Your task to perform on an android device: open app "File Manager" (install if not already installed) Image 0: 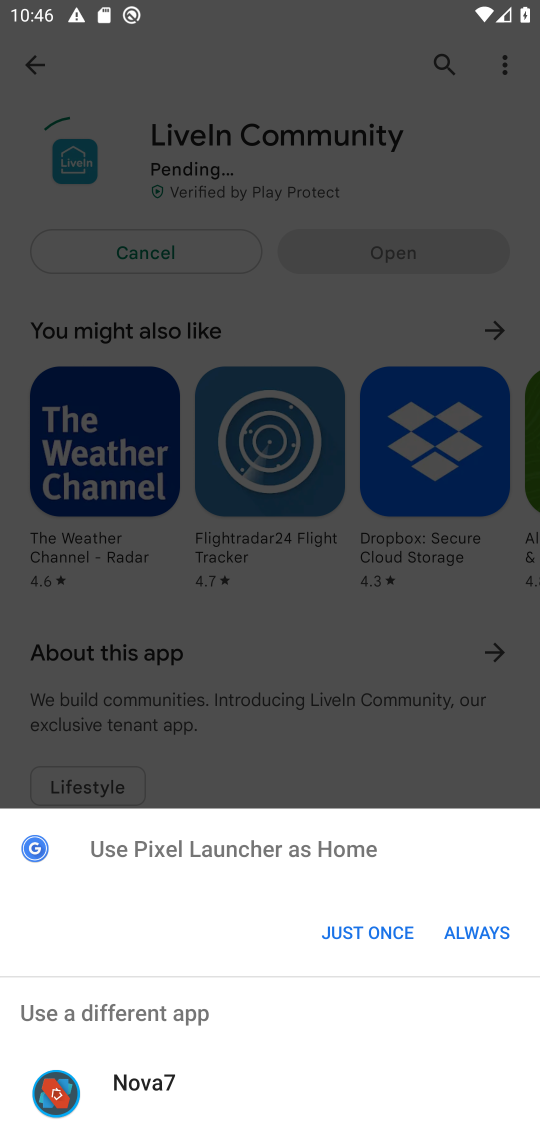
Step 0: click (404, 928)
Your task to perform on an android device: open app "File Manager" (install if not already installed) Image 1: 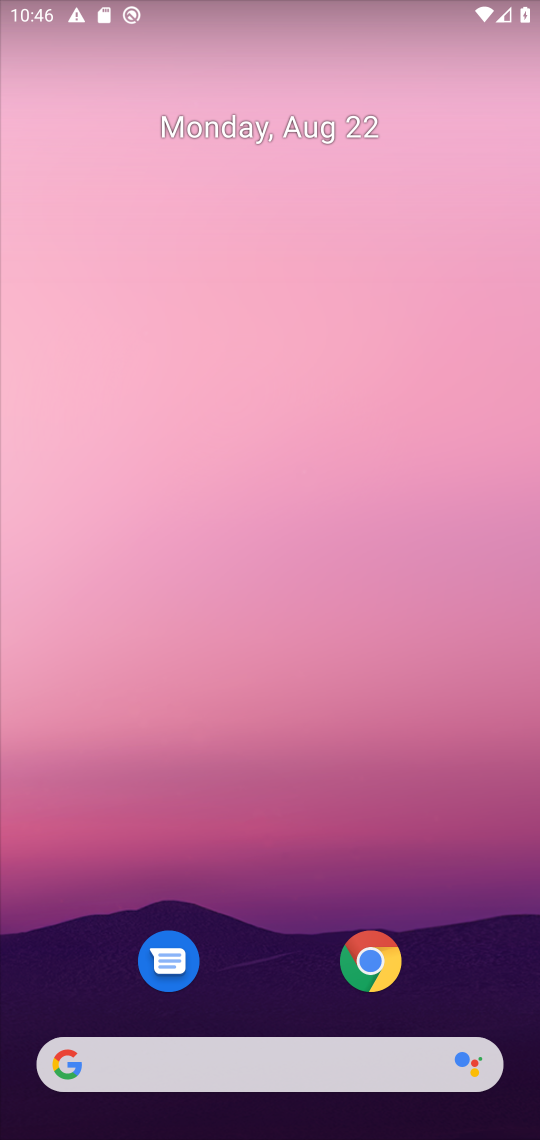
Step 1: drag from (258, 997) to (166, 37)
Your task to perform on an android device: open app "File Manager" (install if not already installed) Image 2: 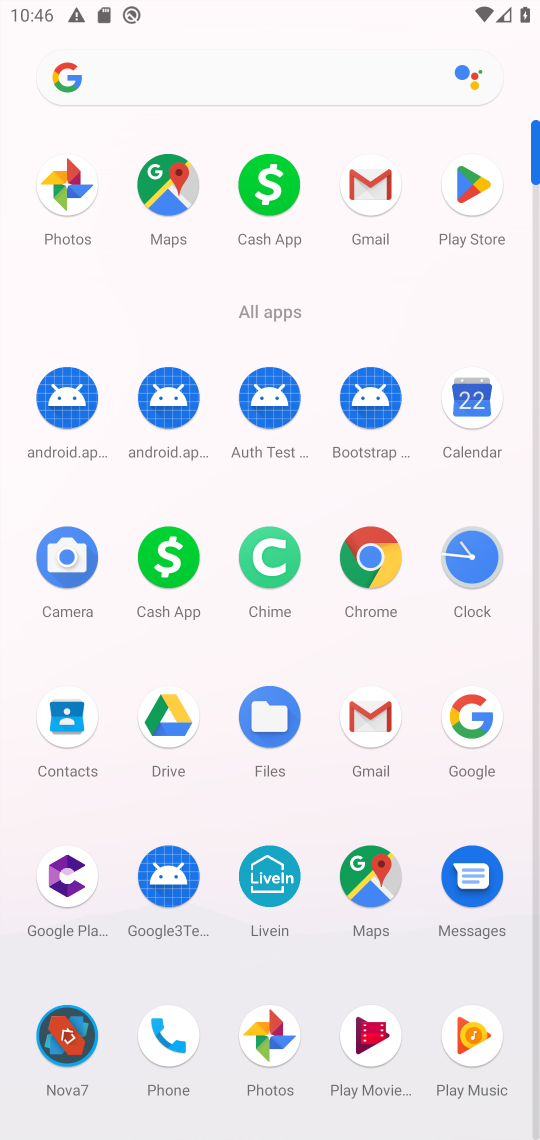
Step 2: click (282, 744)
Your task to perform on an android device: open app "File Manager" (install if not already installed) Image 3: 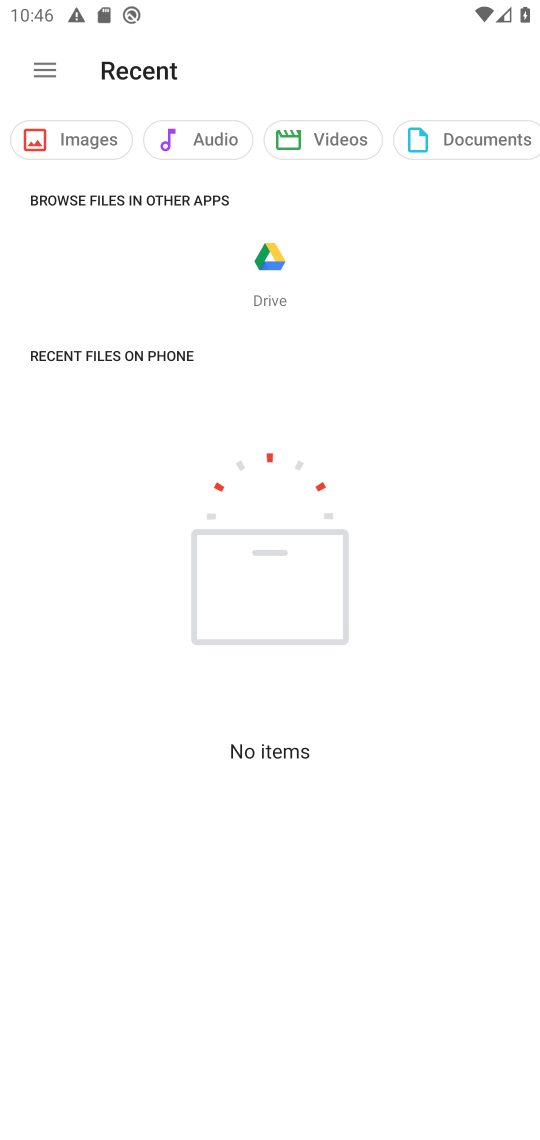
Step 3: press home button
Your task to perform on an android device: open app "File Manager" (install if not already installed) Image 4: 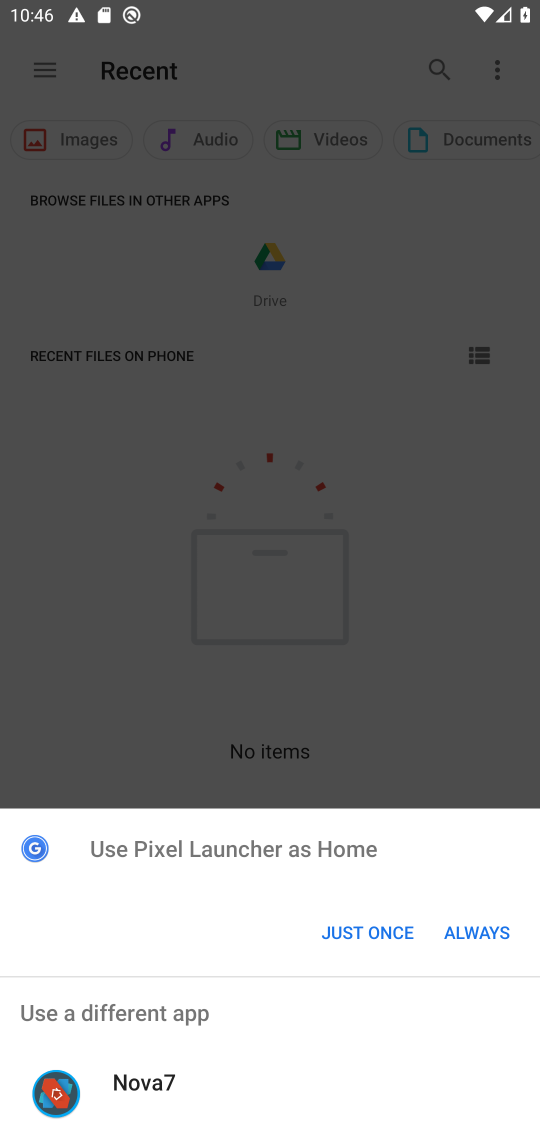
Step 4: press home button
Your task to perform on an android device: open app "File Manager" (install if not already installed) Image 5: 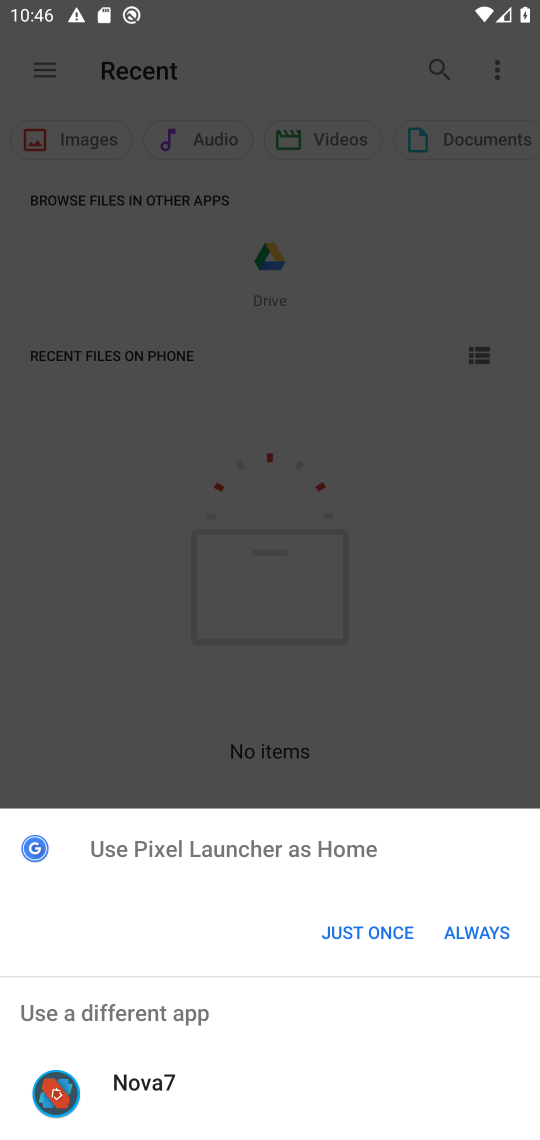
Step 5: press home button
Your task to perform on an android device: open app "File Manager" (install if not already installed) Image 6: 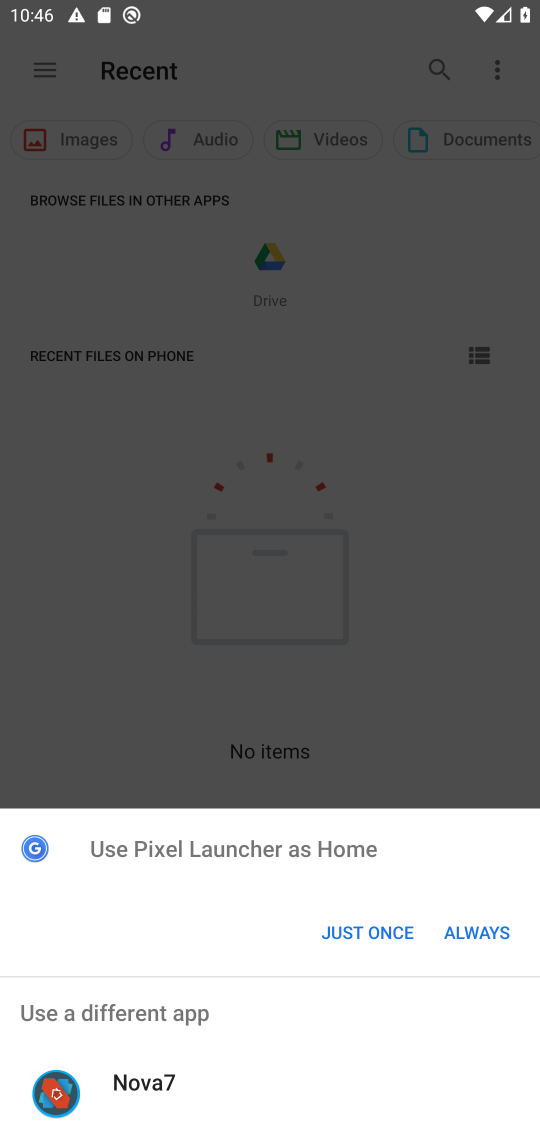
Step 6: press home button
Your task to perform on an android device: open app "File Manager" (install if not already installed) Image 7: 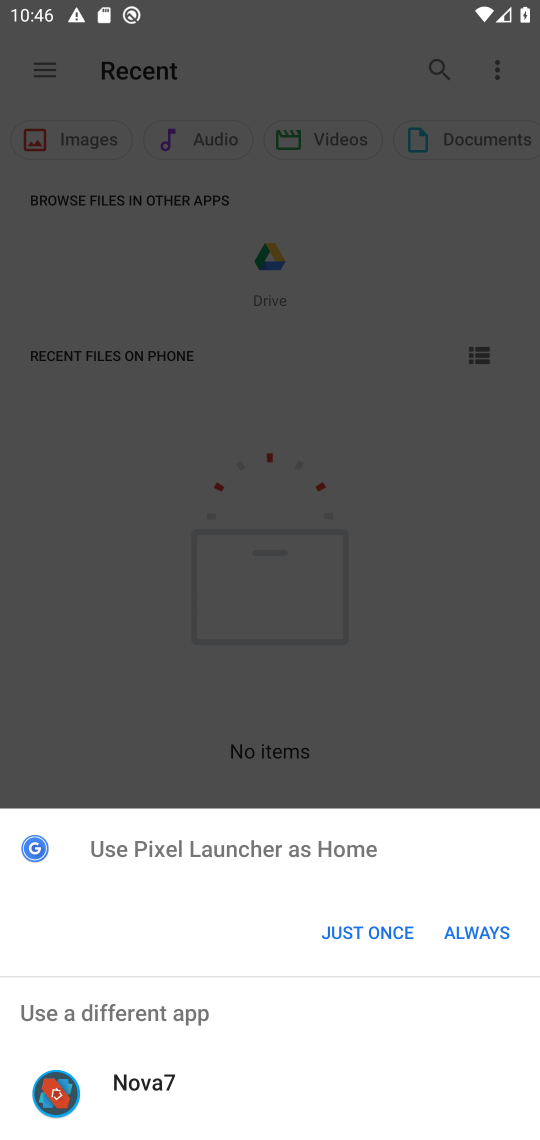
Step 7: press home button
Your task to perform on an android device: open app "File Manager" (install if not already installed) Image 8: 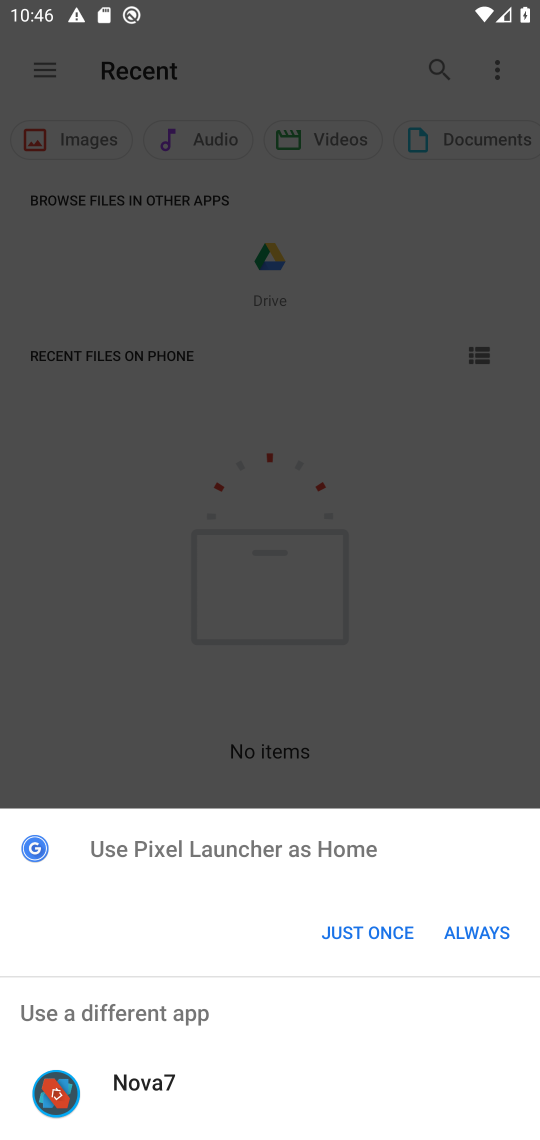
Step 8: press home button
Your task to perform on an android device: open app "File Manager" (install if not already installed) Image 9: 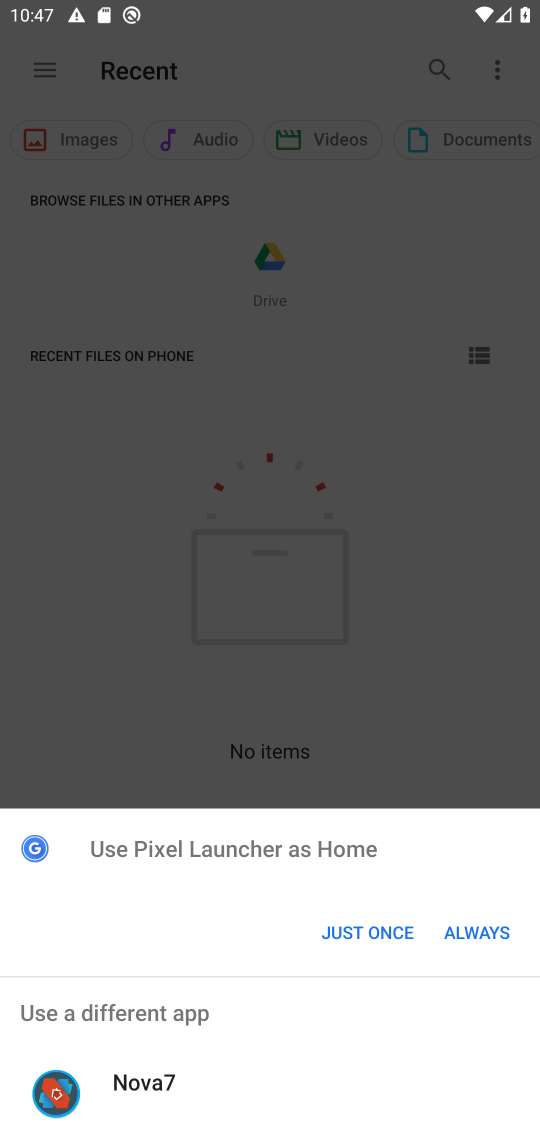
Step 9: click (321, 905)
Your task to perform on an android device: open app "File Manager" (install if not already installed) Image 10: 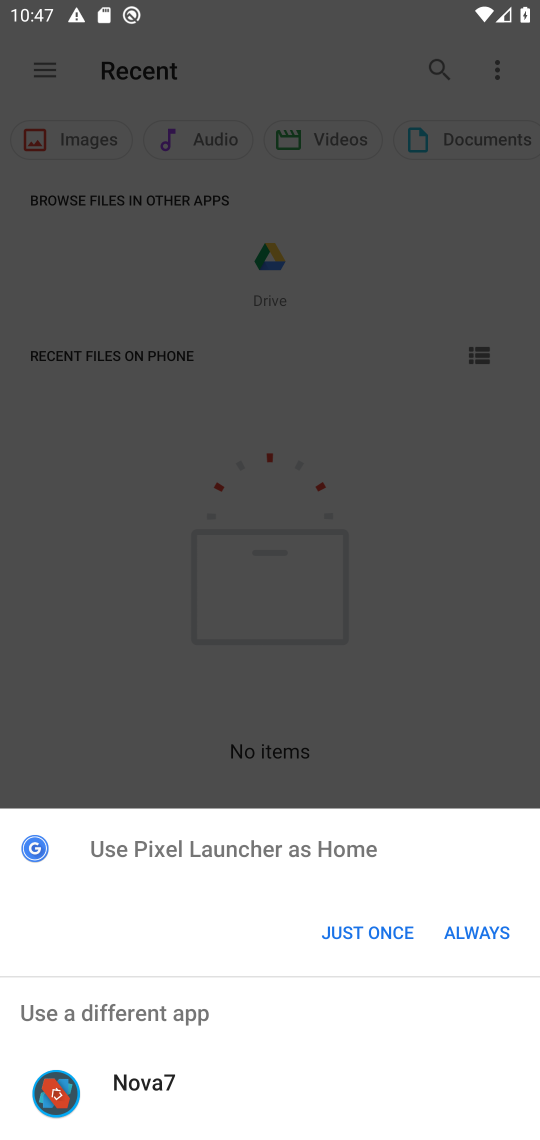
Step 10: click (321, 905)
Your task to perform on an android device: open app "File Manager" (install if not already installed) Image 11: 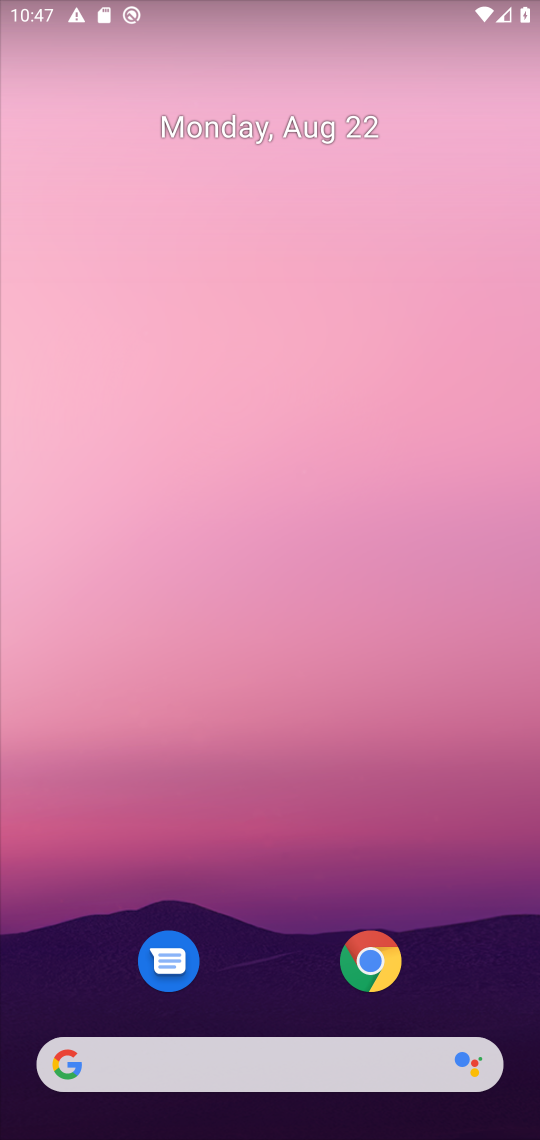
Step 11: drag from (261, 1003) to (269, 75)
Your task to perform on an android device: open app "File Manager" (install if not already installed) Image 12: 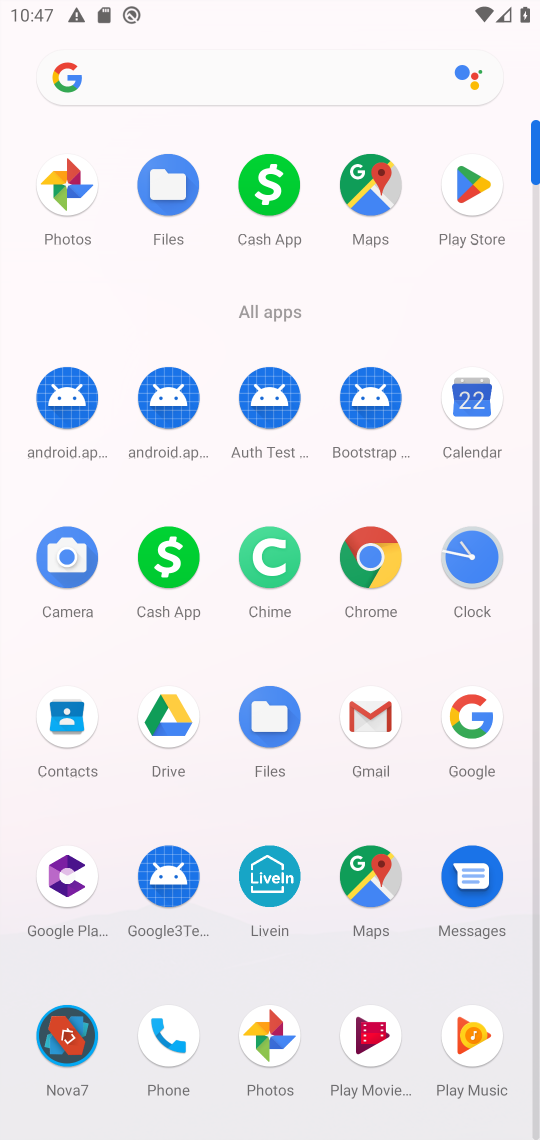
Step 12: click (167, 223)
Your task to perform on an android device: open app "File Manager" (install if not already installed) Image 13: 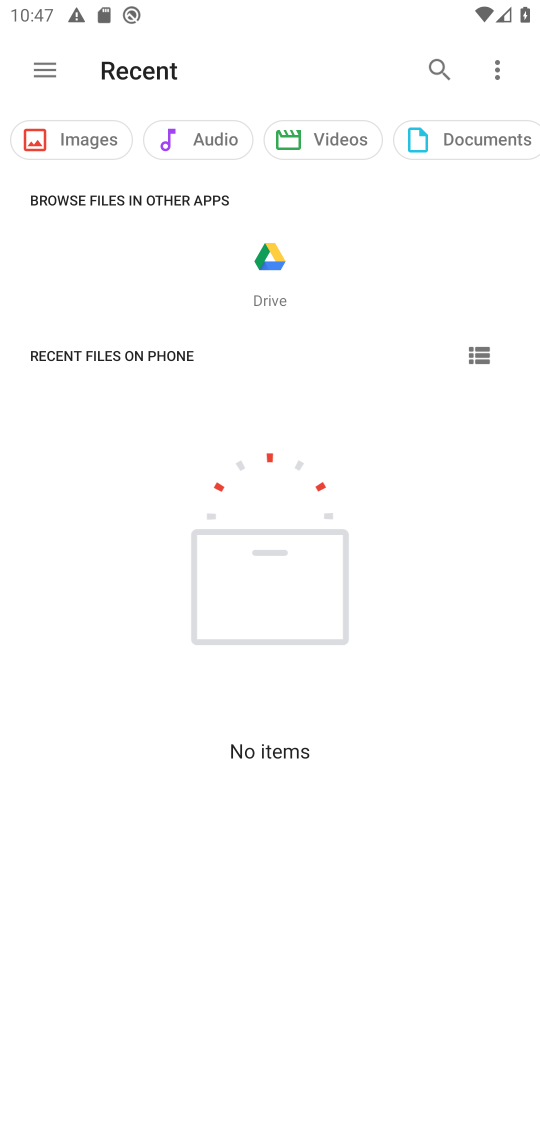
Step 13: task complete